Your task to perform on an android device: turn on wifi Image 0: 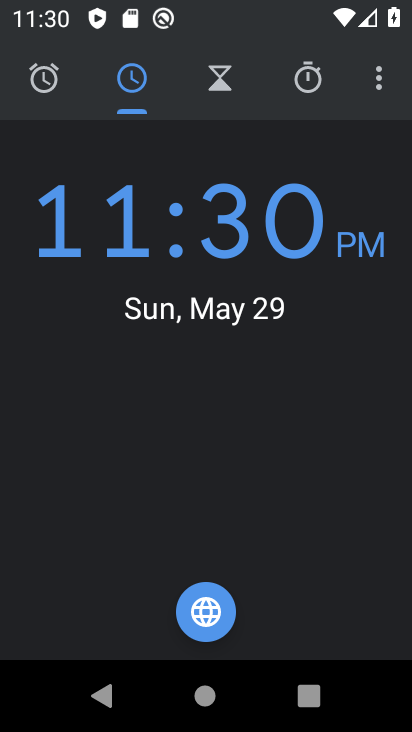
Step 0: drag from (356, 9) to (344, 297)
Your task to perform on an android device: turn on wifi Image 1: 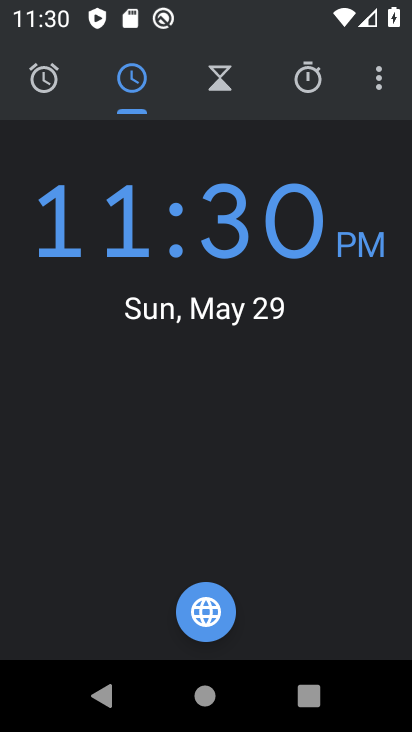
Step 1: task complete